Your task to perform on an android device: toggle improve location accuracy Image 0: 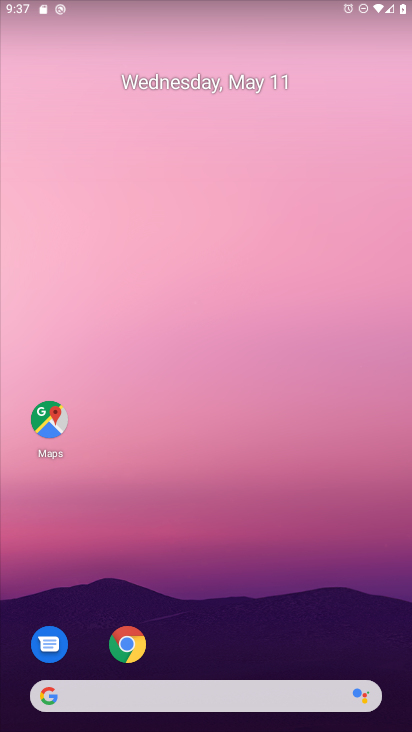
Step 0: drag from (278, 564) to (151, 154)
Your task to perform on an android device: toggle improve location accuracy Image 1: 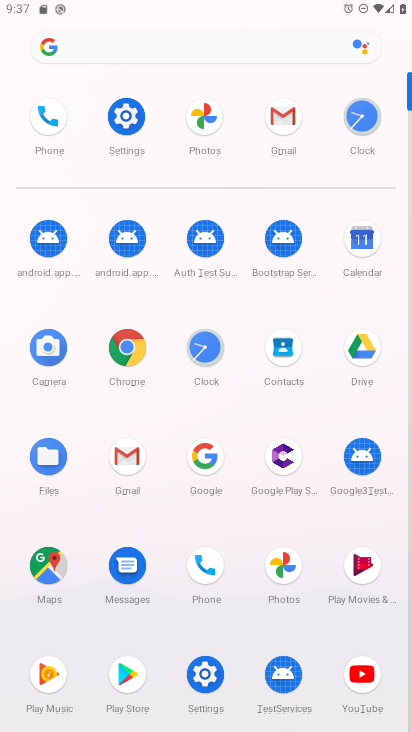
Step 1: click (200, 452)
Your task to perform on an android device: toggle improve location accuracy Image 2: 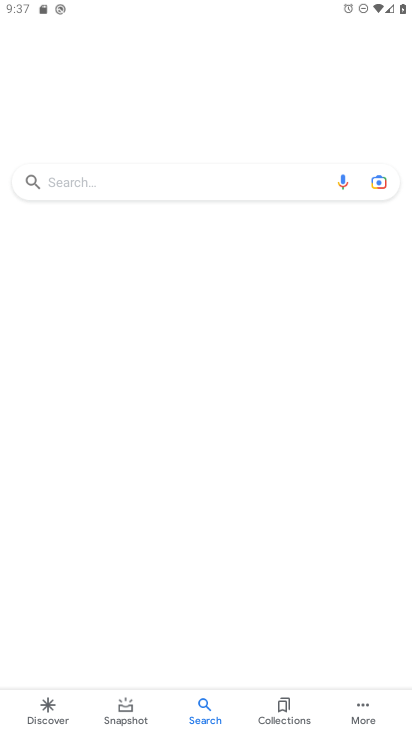
Step 2: press home button
Your task to perform on an android device: toggle improve location accuracy Image 3: 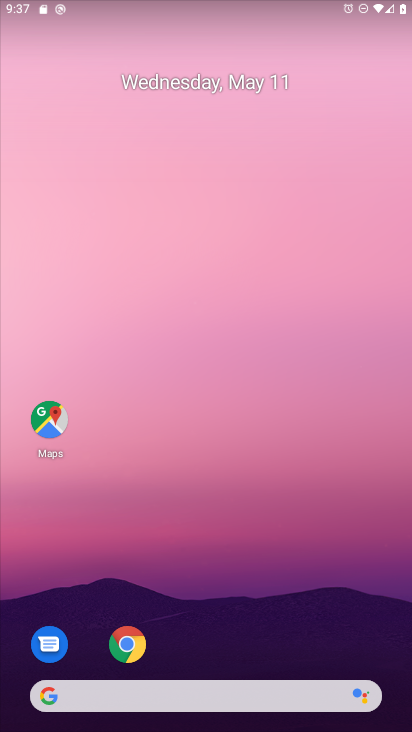
Step 3: drag from (212, 540) to (38, 103)
Your task to perform on an android device: toggle improve location accuracy Image 4: 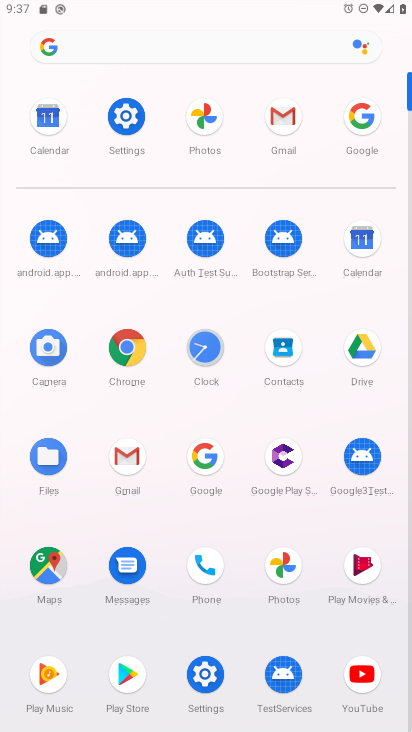
Step 4: click (122, 113)
Your task to perform on an android device: toggle improve location accuracy Image 5: 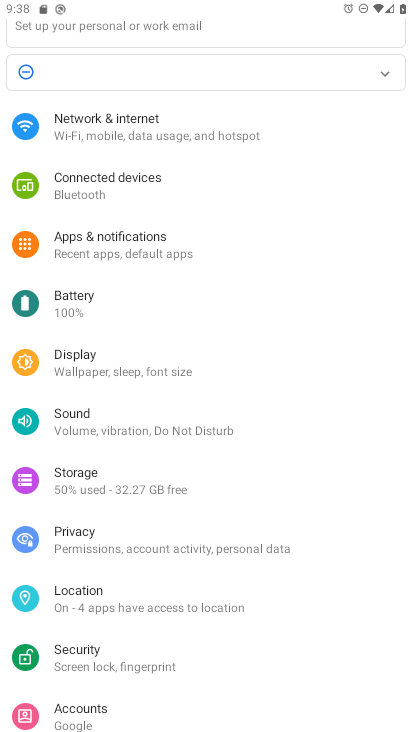
Step 5: click (81, 595)
Your task to perform on an android device: toggle improve location accuracy Image 6: 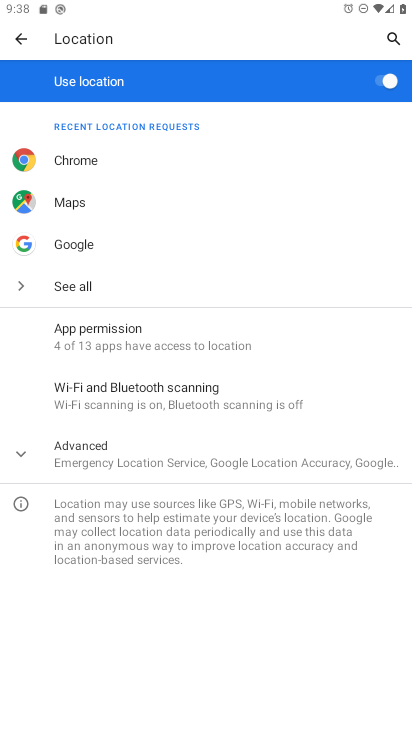
Step 6: click (48, 451)
Your task to perform on an android device: toggle improve location accuracy Image 7: 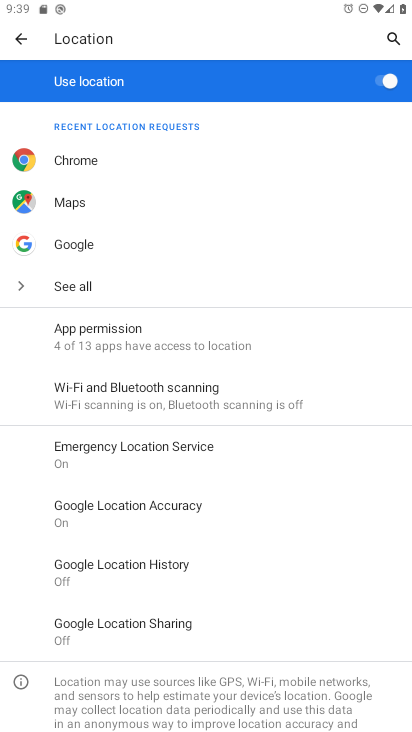
Step 7: click (138, 502)
Your task to perform on an android device: toggle improve location accuracy Image 8: 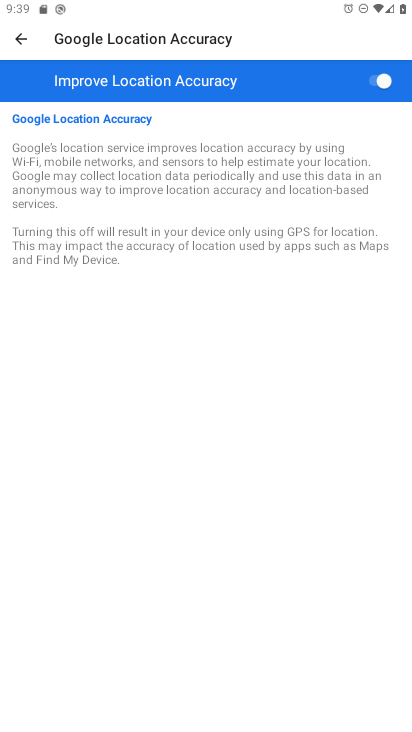
Step 8: click (387, 79)
Your task to perform on an android device: toggle improve location accuracy Image 9: 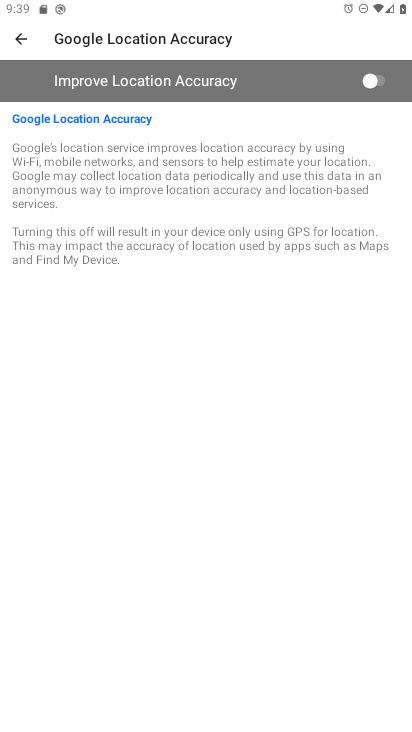
Step 9: task complete